Your task to perform on an android device: Go to privacy settings Image 0: 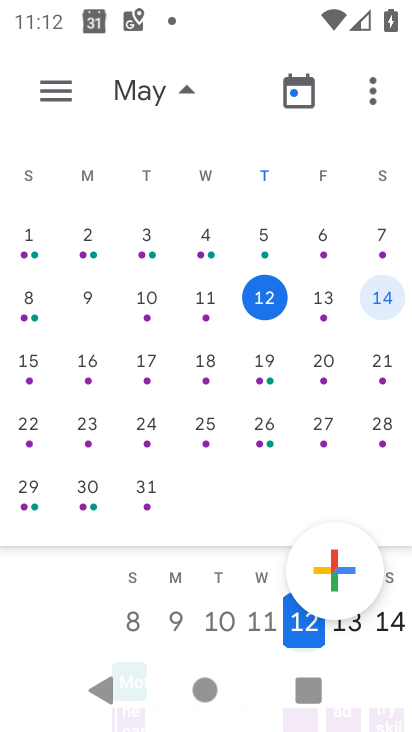
Step 0: press home button
Your task to perform on an android device: Go to privacy settings Image 1: 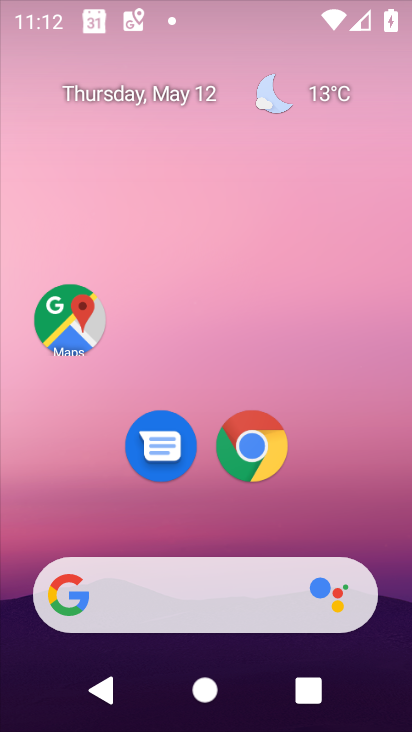
Step 1: drag from (282, 561) to (287, 53)
Your task to perform on an android device: Go to privacy settings Image 2: 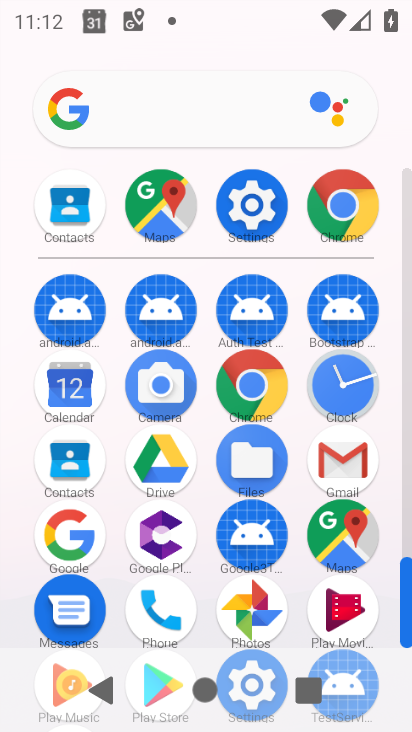
Step 2: click (268, 211)
Your task to perform on an android device: Go to privacy settings Image 3: 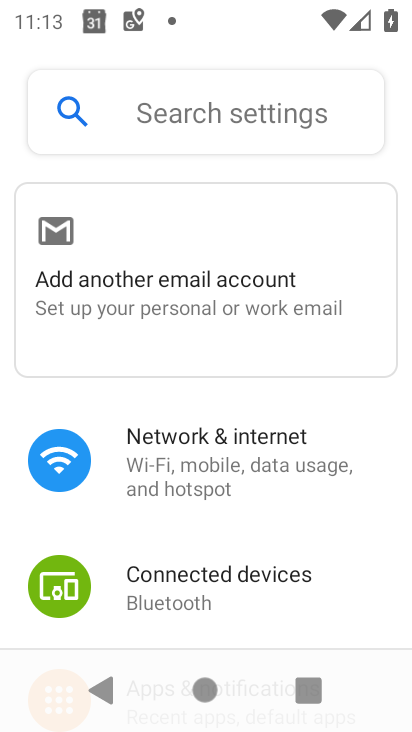
Step 3: drag from (236, 589) to (242, 29)
Your task to perform on an android device: Go to privacy settings Image 4: 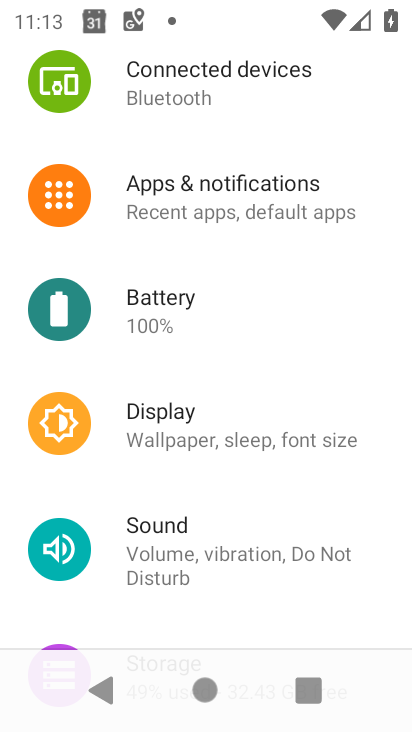
Step 4: drag from (317, 622) to (327, 52)
Your task to perform on an android device: Go to privacy settings Image 5: 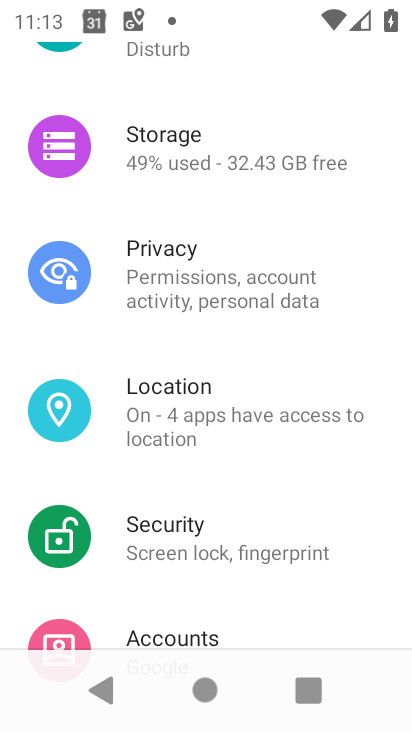
Step 5: click (254, 263)
Your task to perform on an android device: Go to privacy settings Image 6: 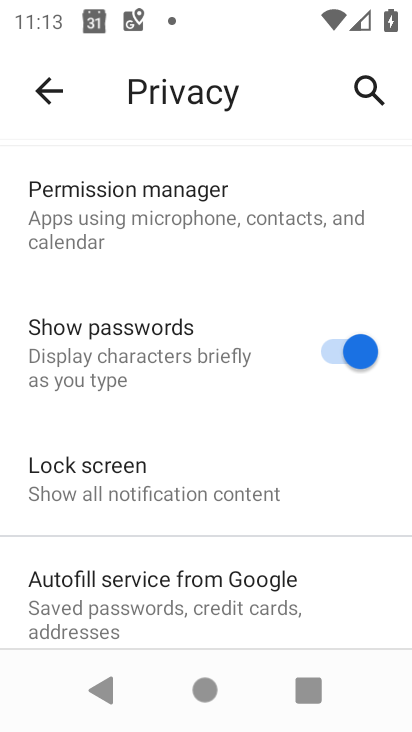
Step 6: task complete